Your task to perform on an android device: Turn off the flashlight Image 0: 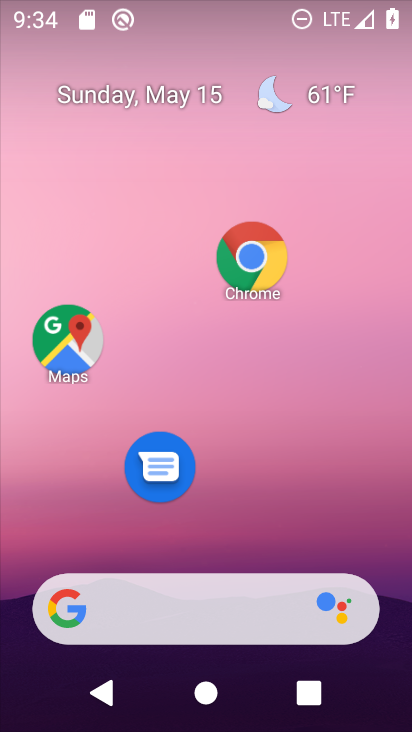
Step 0: task impossible